Your task to perform on an android device: empty trash in the gmail app Image 0: 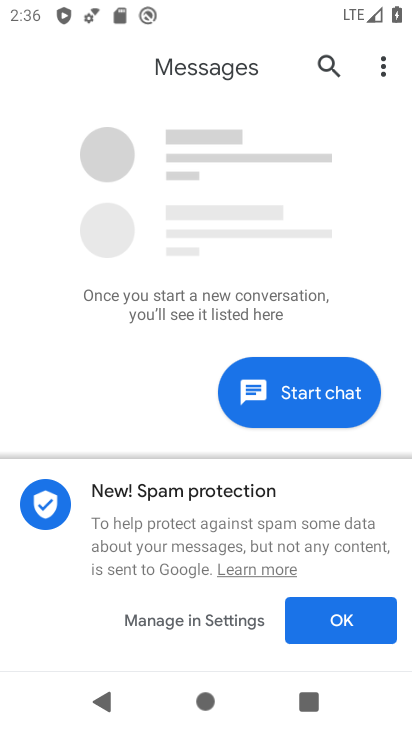
Step 0: press home button
Your task to perform on an android device: empty trash in the gmail app Image 1: 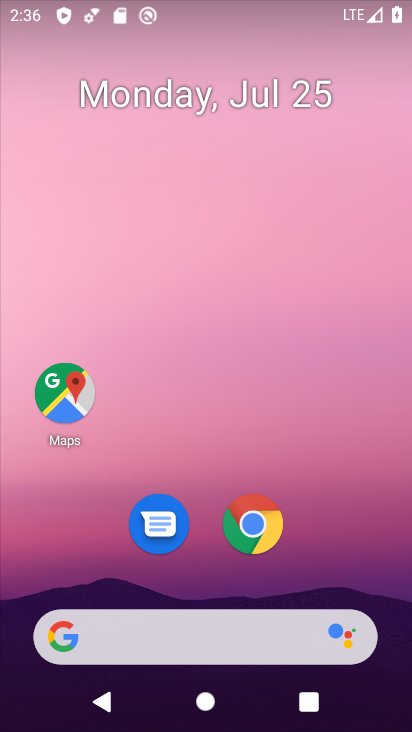
Step 1: drag from (316, 541) to (275, 0)
Your task to perform on an android device: empty trash in the gmail app Image 2: 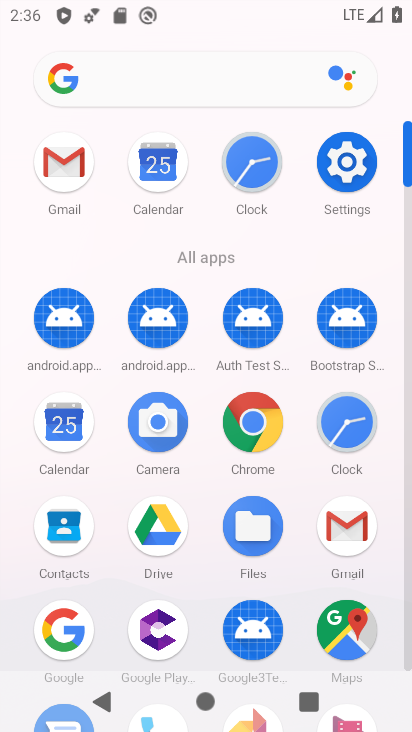
Step 2: click (66, 173)
Your task to perform on an android device: empty trash in the gmail app Image 3: 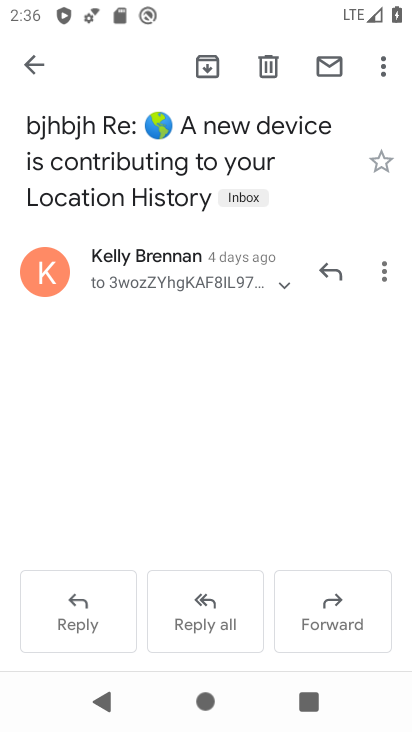
Step 3: click (39, 59)
Your task to perform on an android device: empty trash in the gmail app Image 4: 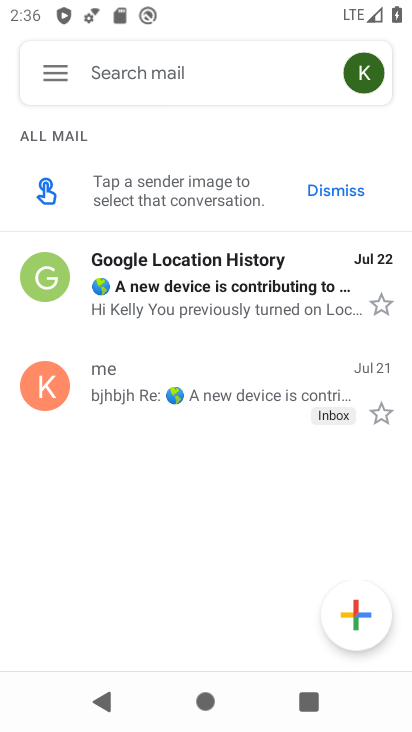
Step 4: click (58, 78)
Your task to perform on an android device: empty trash in the gmail app Image 5: 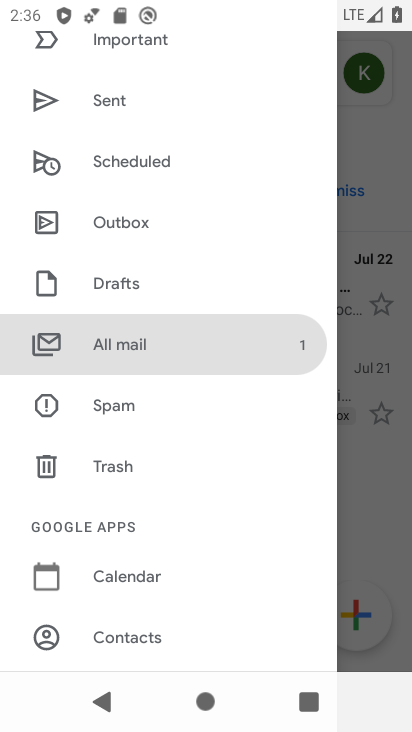
Step 5: click (111, 453)
Your task to perform on an android device: empty trash in the gmail app Image 6: 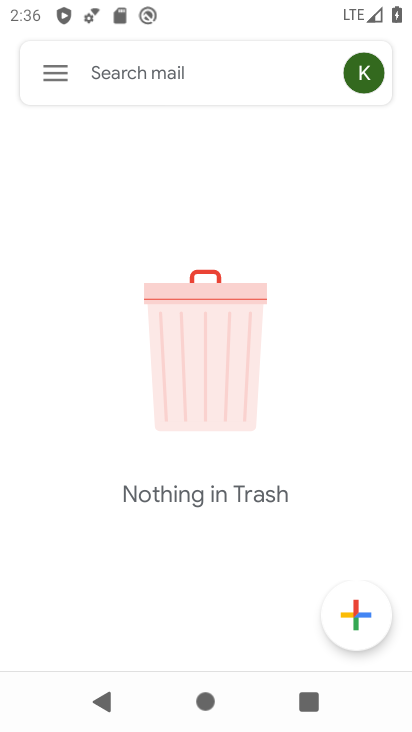
Step 6: task complete